Your task to perform on an android device: When is my next appointment? Image 0: 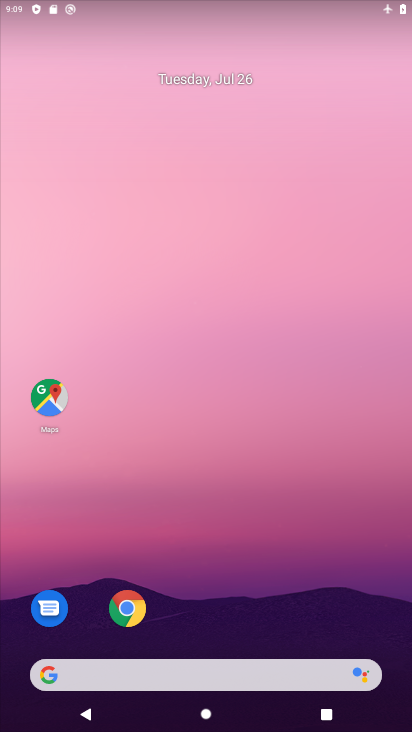
Step 0: drag from (182, 624) to (163, 170)
Your task to perform on an android device: When is my next appointment? Image 1: 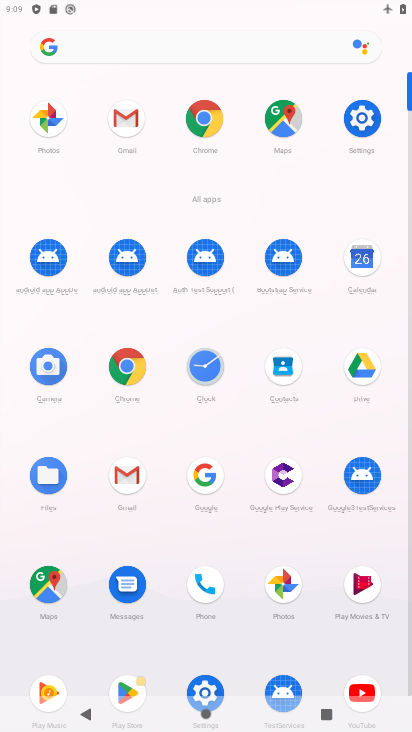
Step 1: click (365, 273)
Your task to perform on an android device: When is my next appointment? Image 2: 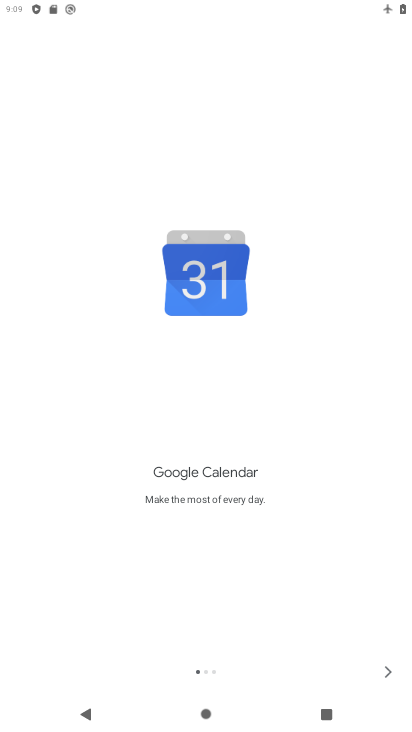
Step 2: click (386, 673)
Your task to perform on an android device: When is my next appointment? Image 3: 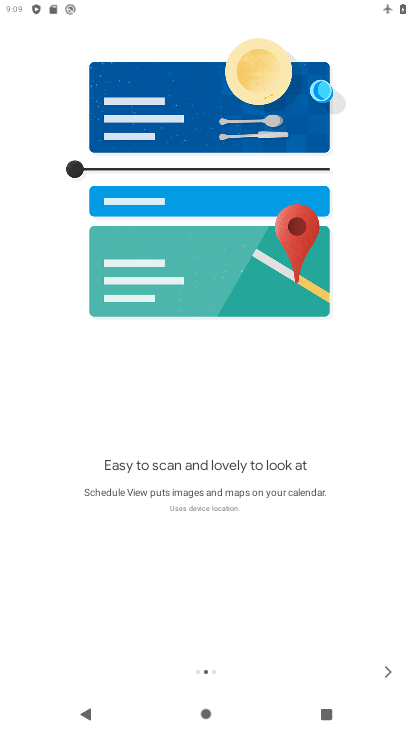
Step 3: click (386, 673)
Your task to perform on an android device: When is my next appointment? Image 4: 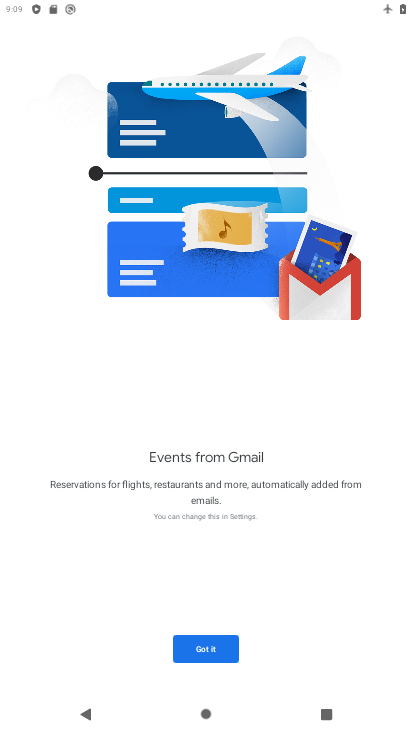
Step 4: click (173, 650)
Your task to perform on an android device: When is my next appointment? Image 5: 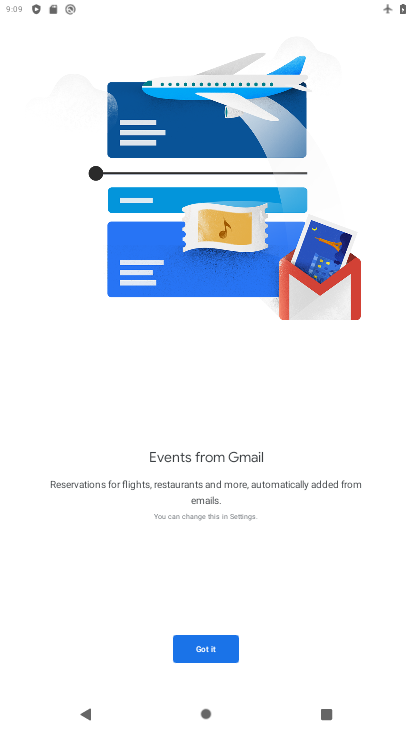
Step 5: click (210, 645)
Your task to perform on an android device: When is my next appointment? Image 6: 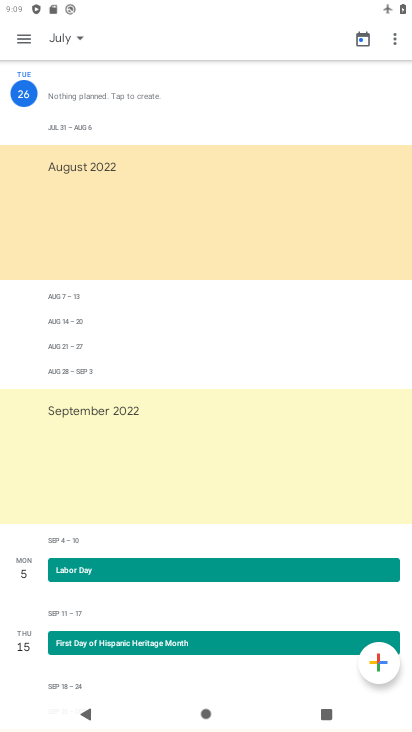
Step 6: click (85, 42)
Your task to perform on an android device: When is my next appointment? Image 7: 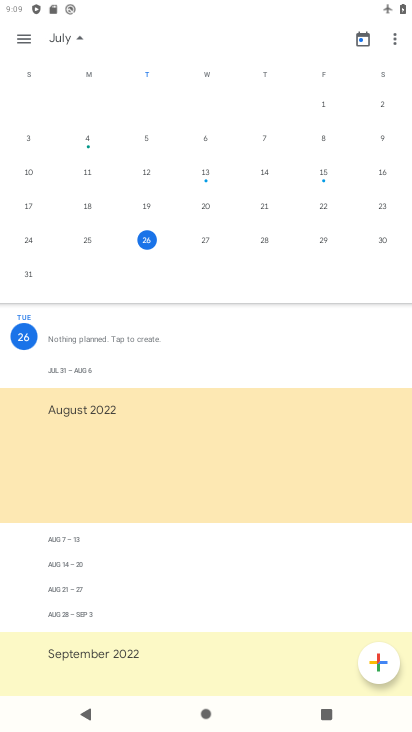
Step 7: click (200, 244)
Your task to perform on an android device: When is my next appointment? Image 8: 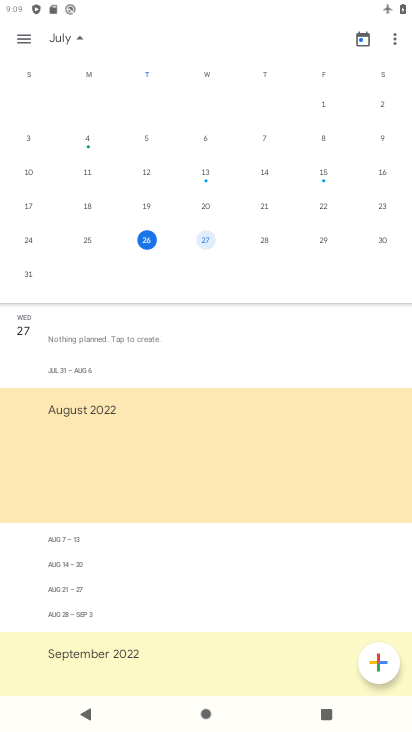
Step 8: click (242, 239)
Your task to perform on an android device: When is my next appointment? Image 9: 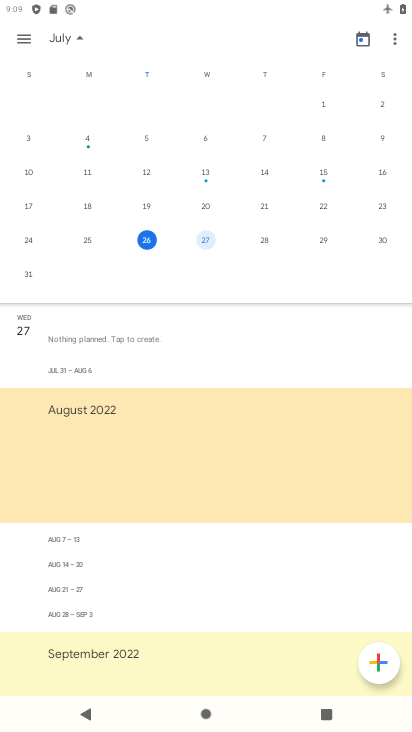
Step 9: click (284, 239)
Your task to perform on an android device: When is my next appointment? Image 10: 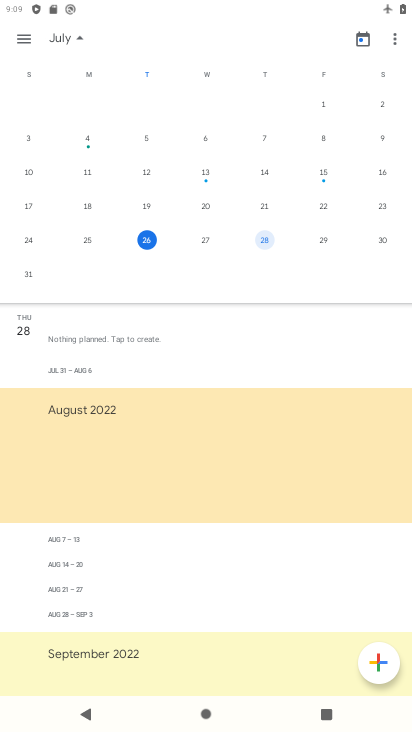
Step 10: task complete